Your task to perform on an android device: Open maps Image 0: 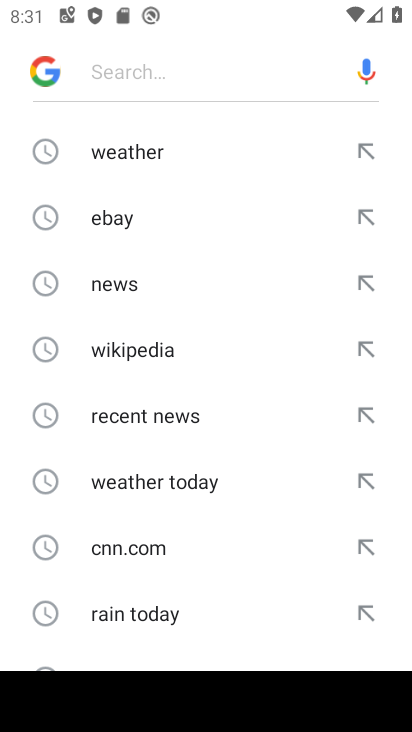
Step 0: press home button
Your task to perform on an android device: Open maps Image 1: 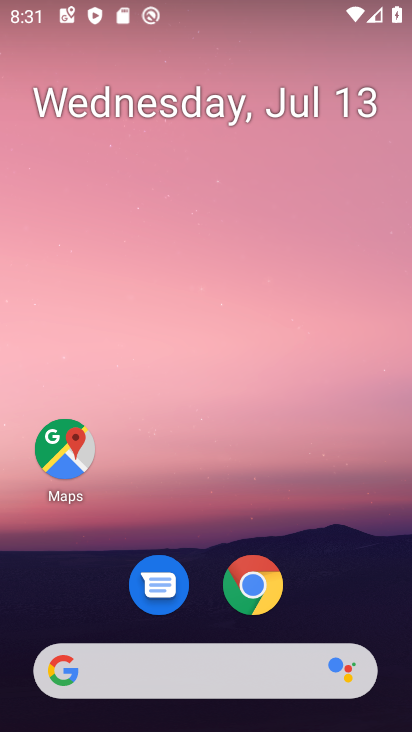
Step 1: click (59, 460)
Your task to perform on an android device: Open maps Image 2: 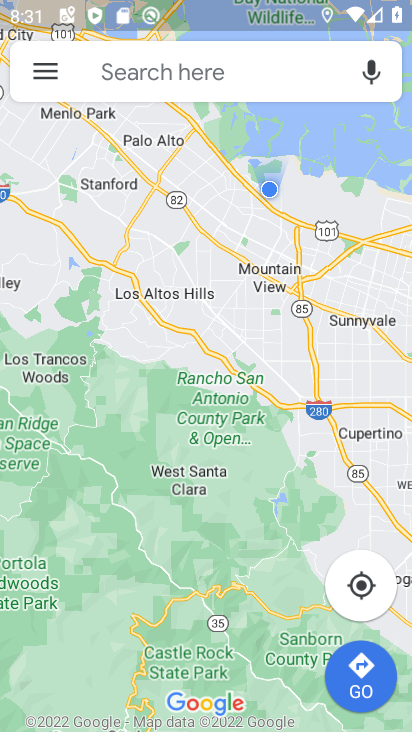
Step 2: task complete